Your task to perform on an android device: What's the weather today? Image 0: 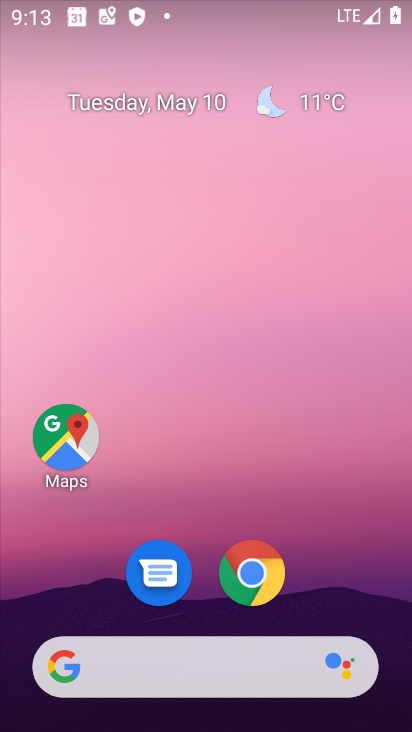
Step 0: click (319, 119)
Your task to perform on an android device: What's the weather today? Image 1: 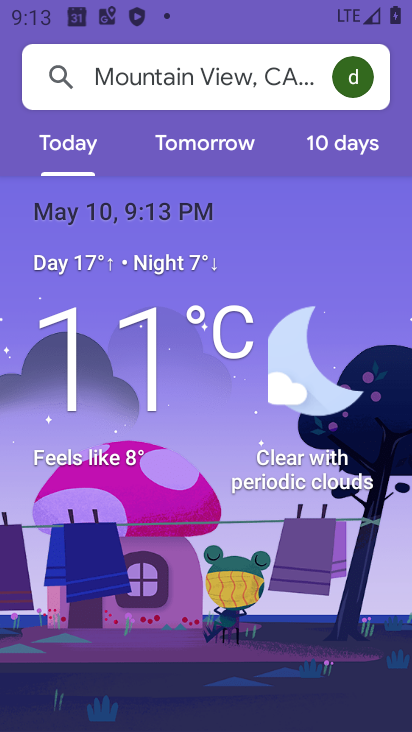
Step 1: task complete